Your task to perform on an android device: Open calendar and show me the fourth week of next month Image 0: 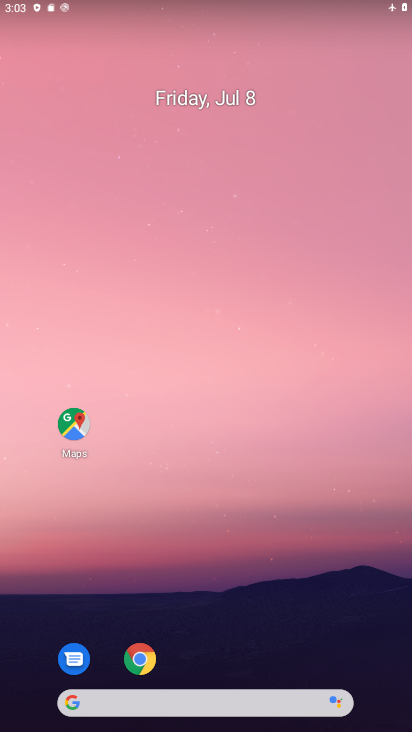
Step 0: drag from (65, 518) to (316, 39)
Your task to perform on an android device: Open calendar and show me the fourth week of next month Image 1: 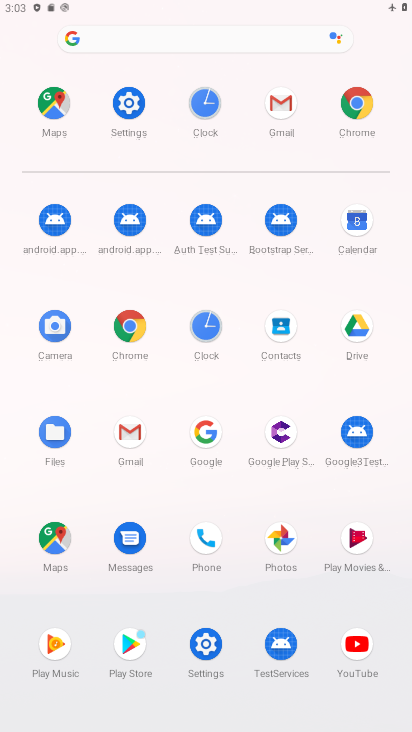
Step 1: click (364, 217)
Your task to perform on an android device: Open calendar and show me the fourth week of next month Image 2: 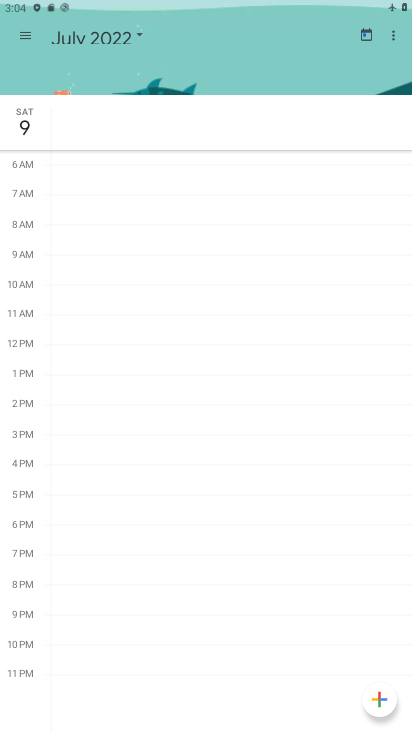
Step 2: task complete